Your task to perform on an android device: turn notification dots on Image 0: 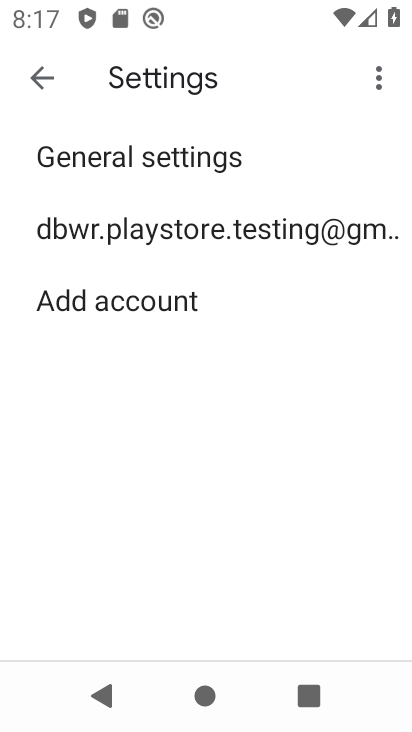
Step 0: press home button
Your task to perform on an android device: turn notification dots on Image 1: 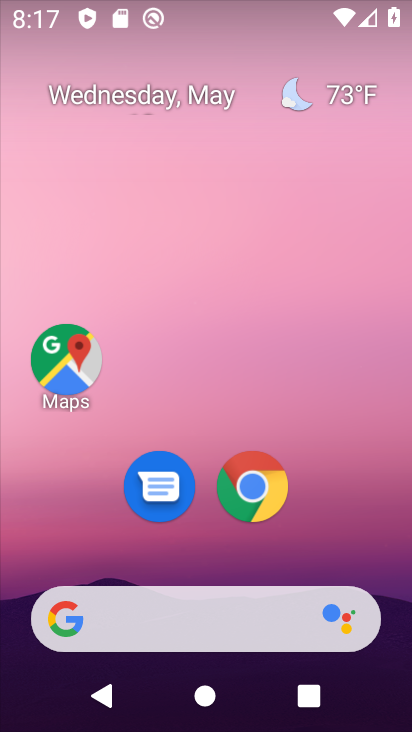
Step 1: drag from (392, 597) to (321, 234)
Your task to perform on an android device: turn notification dots on Image 2: 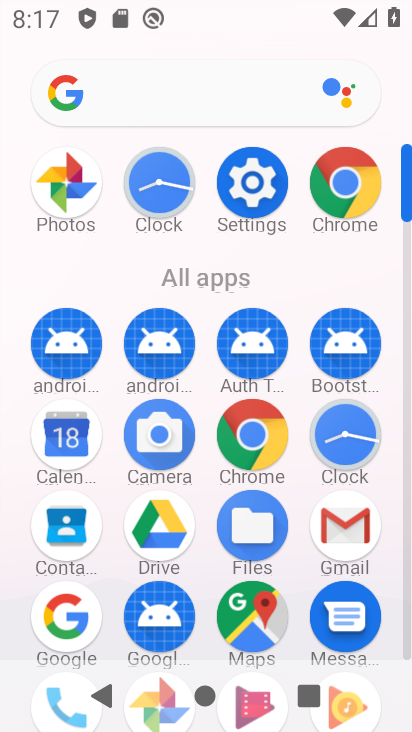
Step 2: click (406, 647)
Your task to perform on an android device: turn notification dots on Image 3: 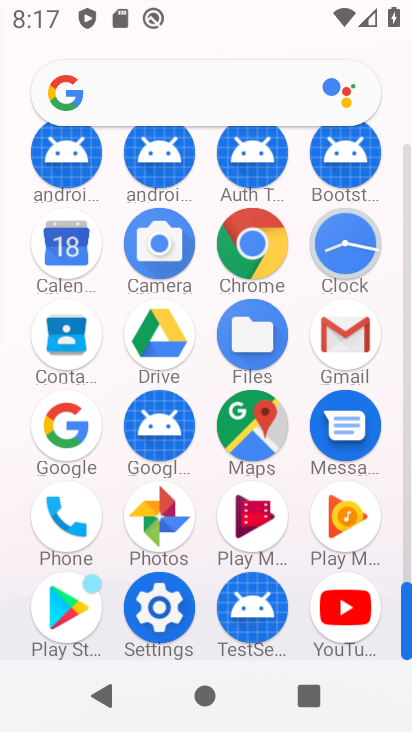
Step 3: click (160, 605)
Your task to perform on an android device: turn notification dots on Image 4: 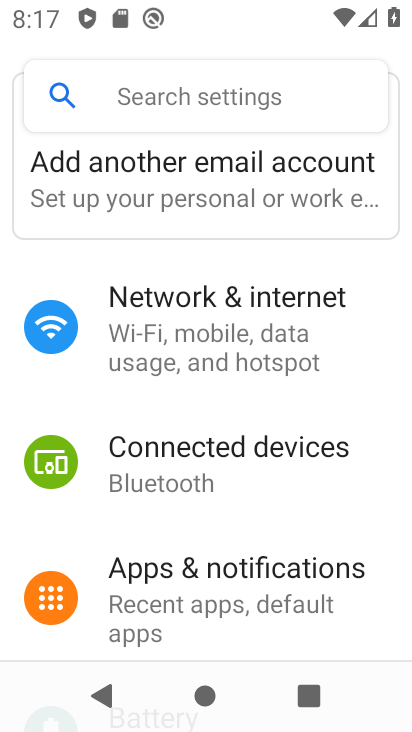
Step 4: click (227, 613)
Your task to perform on an android device: turn notification dots on Image 5: 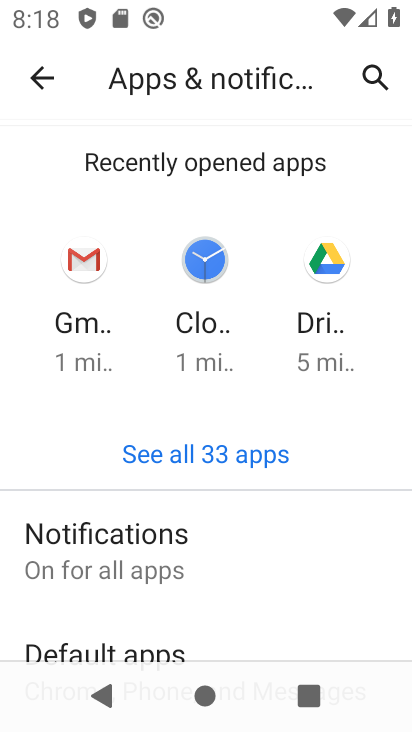
Step 5: click (119, 524)
Your task to perform on an android device: turn notification dots on Image 6: 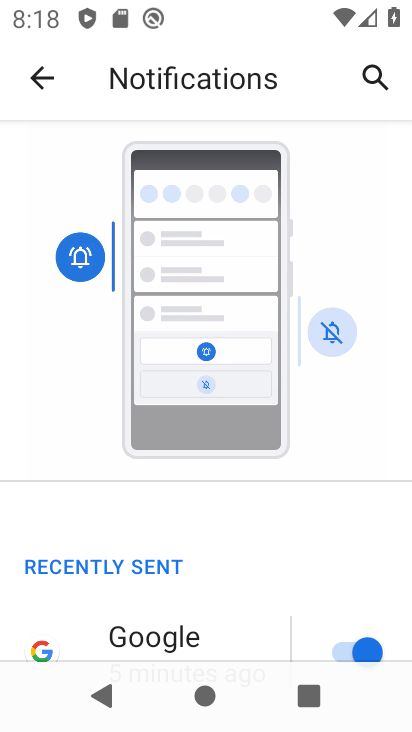
Step 6: drag from (279, 624) to (247, 224)
Your task to perform on an android device: turn notification dots on Image 7: 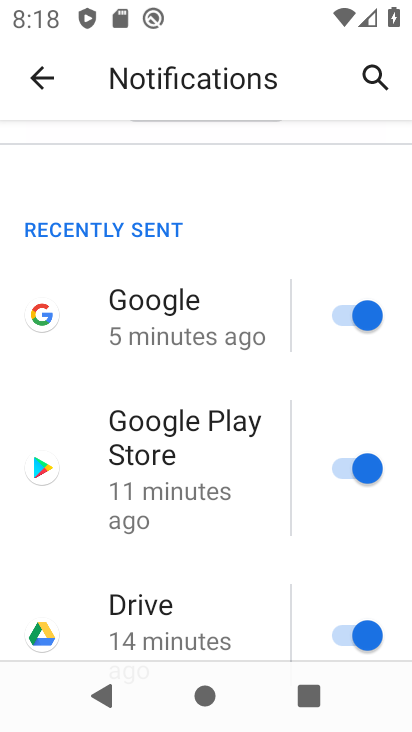
Step 7: drag from (293, 604) to (264, 420)
Your task to perform on an android device: turn notification dots on Image 8: 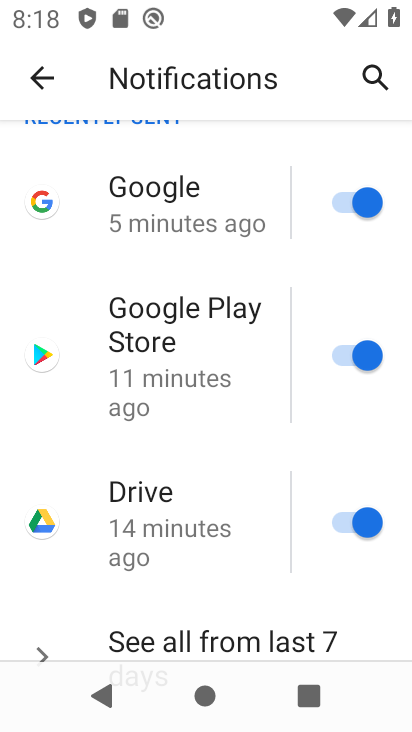
Step 8: drag from (300, 607) to (263, 292)
Your task to perform on an android device: turn notification dots on Image 9: 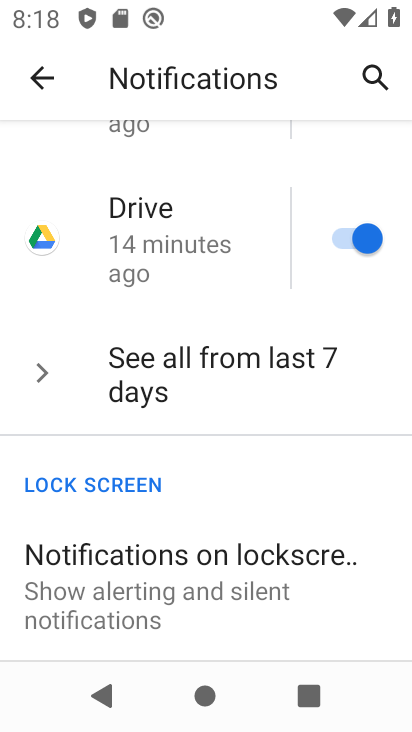
Step 9: drag from (270, 561) to (240, 268)
Your task to perform on an android device: turn notification dots on Image 10: 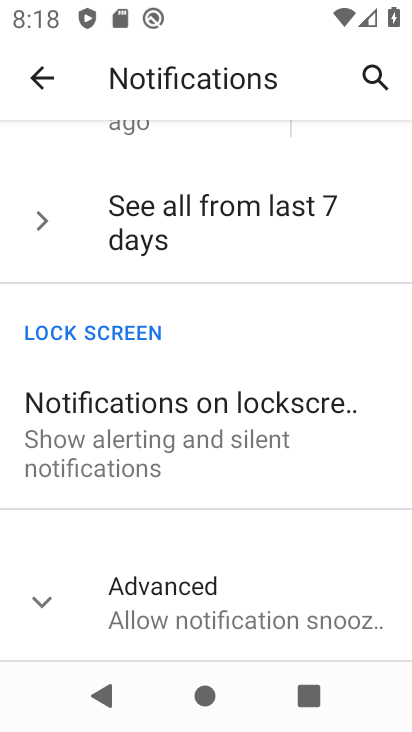
Step 10: click (46, 611)
Your task to perform on an android device: turn notification dots on Image 11: 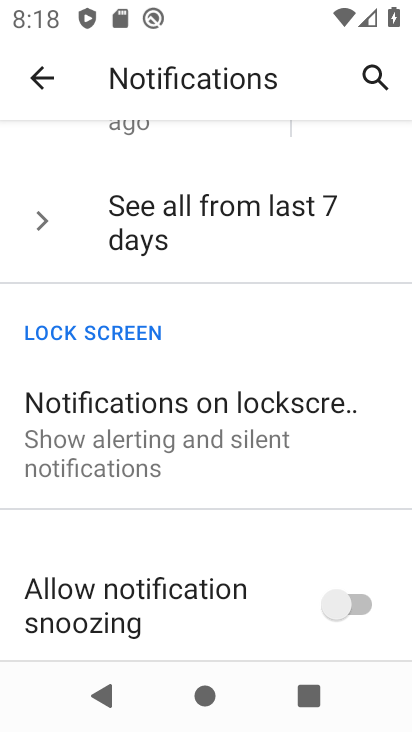
Step 11: task complete